Your task to perform on an android device: What's the weather going to be tomorrow? Image 0: 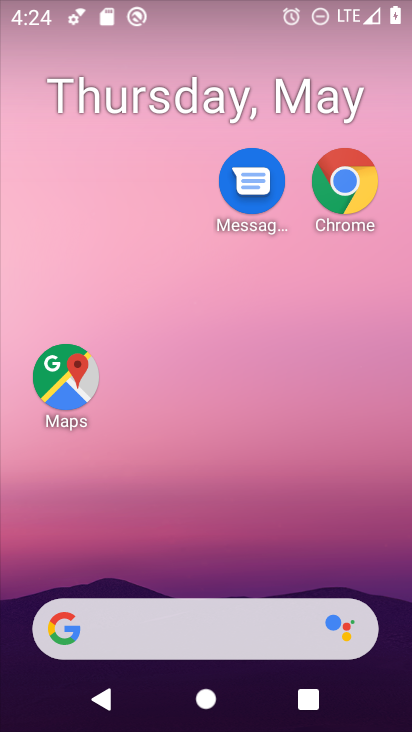
Step 0: drag from (191, 560) to (264, 0)
Your task to perform on an android device: What's the weather going to be tomorrow? Image 1: 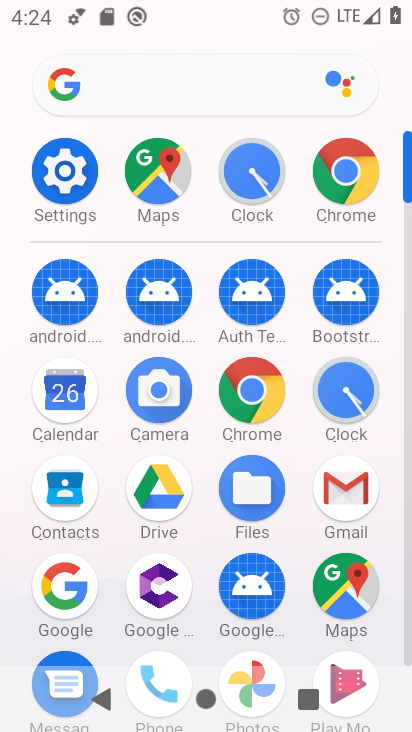
Step 1: press home button
Your task to perform on an android device: What's the weather going to be tomorrow? Image 2: 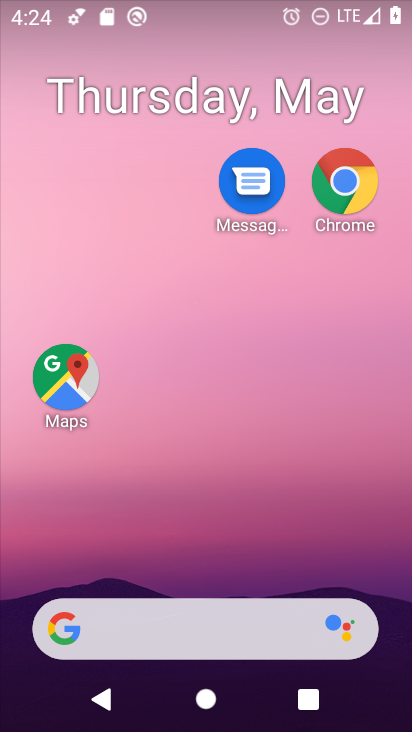
Step 2: drag from (44, 255) to (406, 472)
Your task to perform on an android device: What's the weather going to be tomorrow? Image 3: 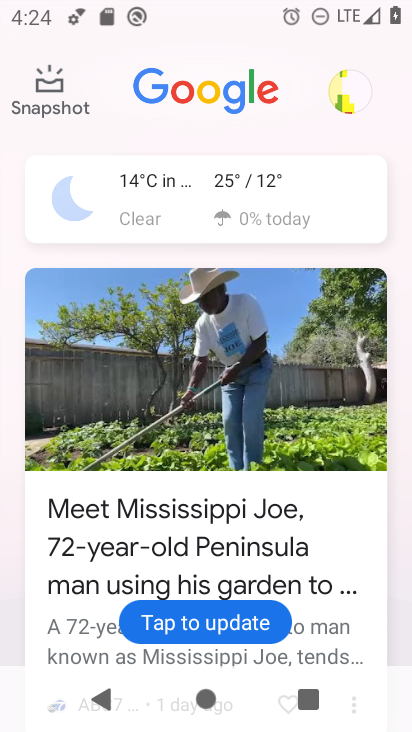
Step 3: click (192, 211)
Your task to perform on an android device: What's the weather going to be tomorrow? Image 4: 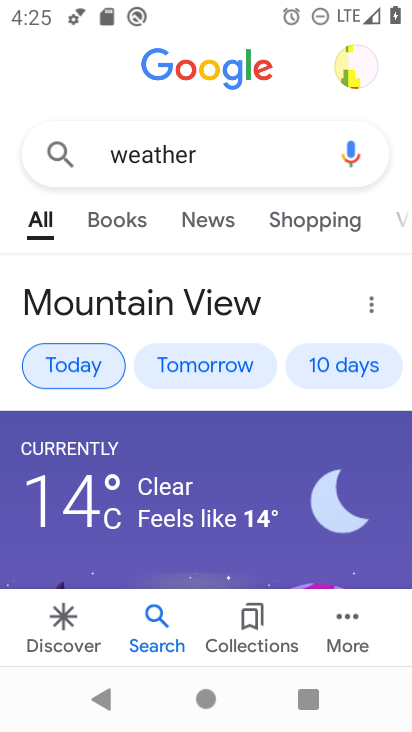
Step 4: click (216, 361)
Your task to perform on an android device: What's the weather going to be tomorrow? Image 5: 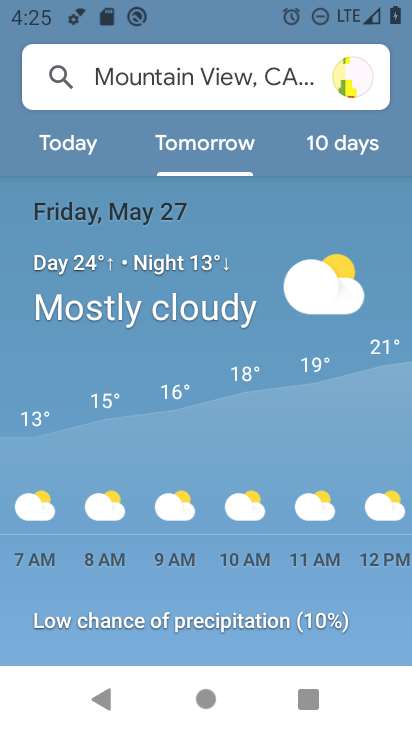
Step 5: task complete